Your task to perform on an android device: Open maps Image 0: 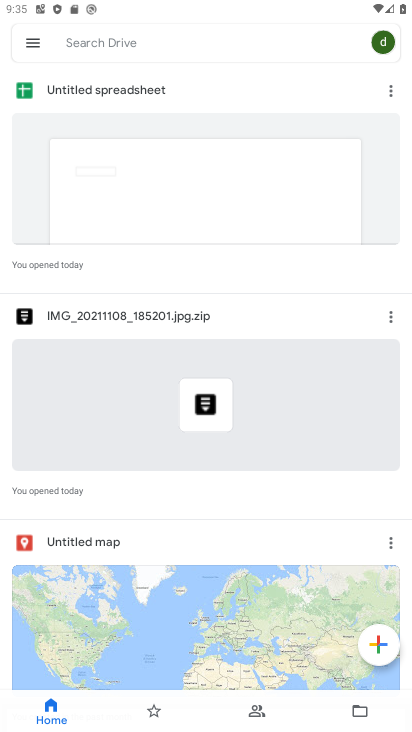
Step 0: press home button
Your task to perform on an android device: Open maps Image 1: 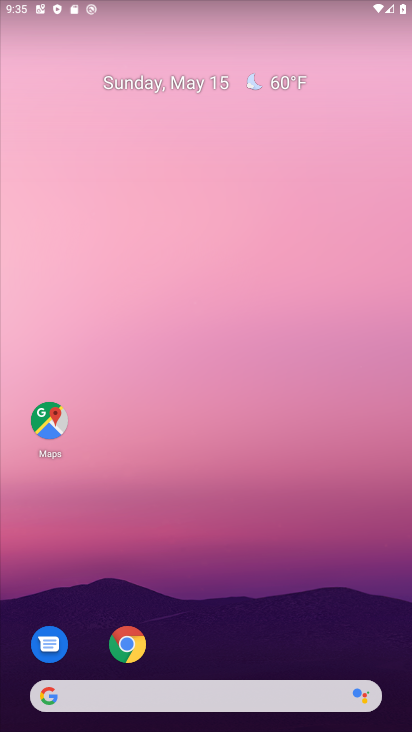
Step 1: drag from (166, 662) to (192, 353)
Your task to perform on an android device: Open maps Image 2: 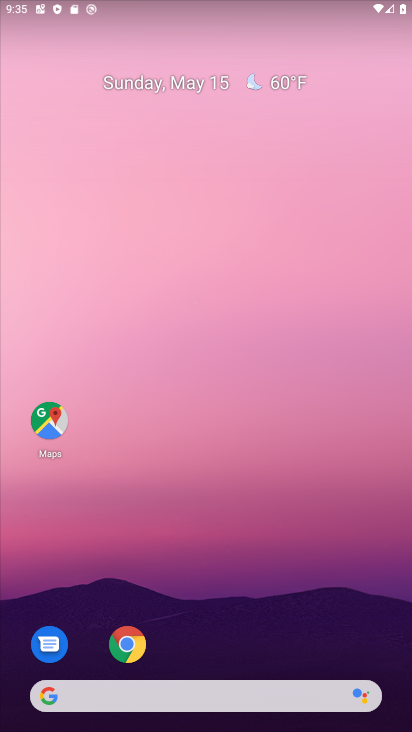
Step 2: drag from (218, 690) to (220, 452)
Your task to perform on an android device: Open maps Image 3: 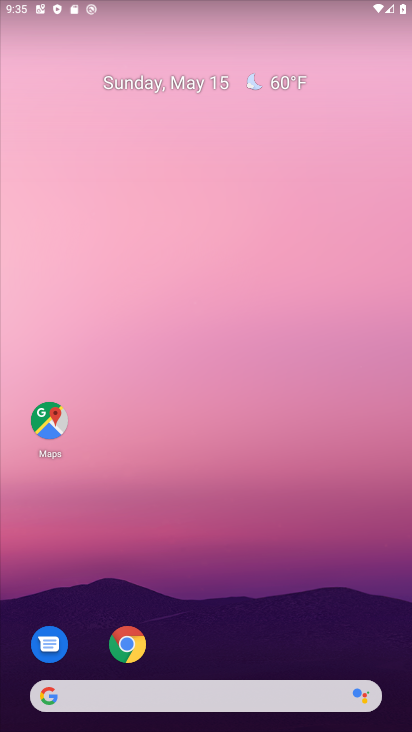
Step 3: click (53, 427)
Your task to perform on an android device: Open maps Image 4: 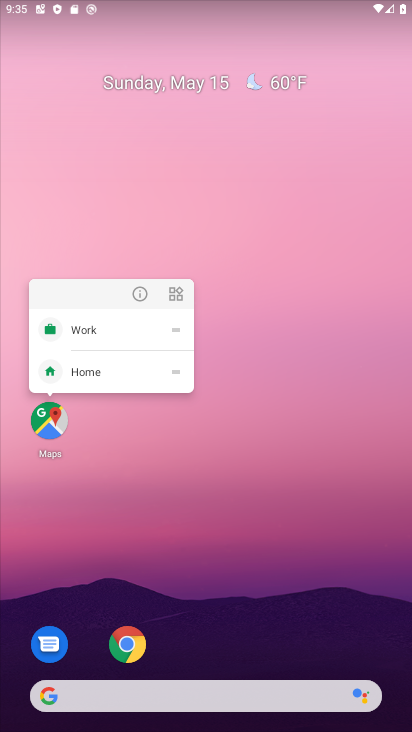
Step 4: click (53, 427)
Your task to perform on an android device: Open maps Image 5: 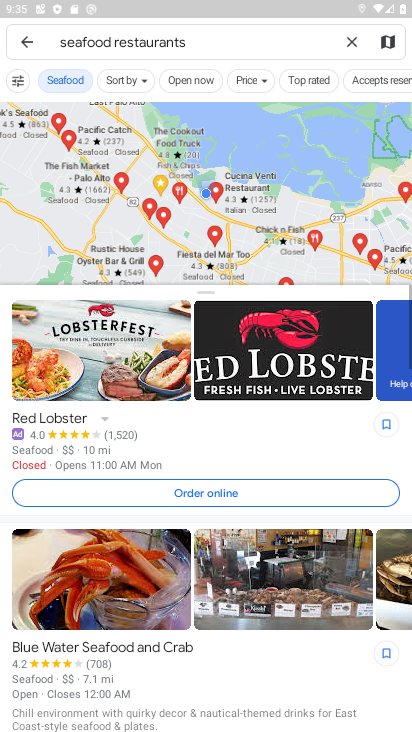
Step 5: click (350, 39)
Your task to perform on an android device: Open maps Image 6: 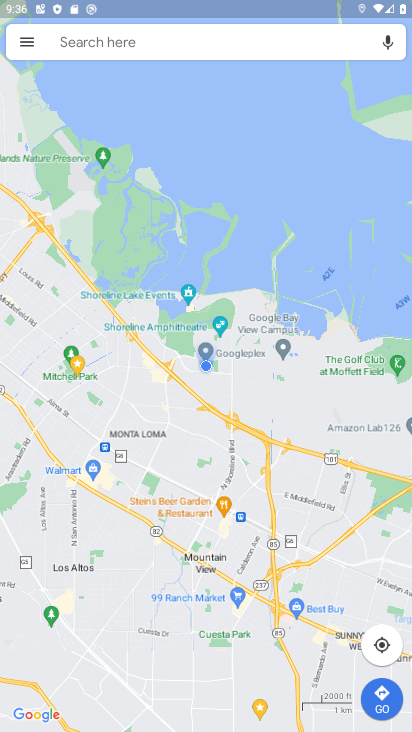
Step 6: task complete